Your task to perform on an android device: Set the phone to "Do not disturb". Image 0: 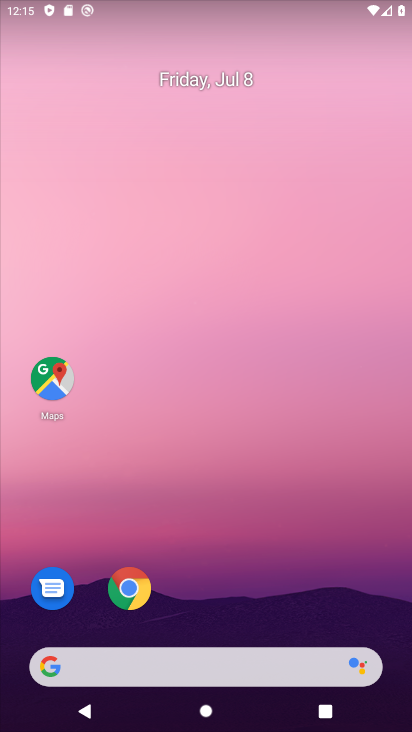
Step 0: drag from (231, 1) to (187, 712)
Your task to perform on an android device: Set the phone to "Do not disturb". Image 1: 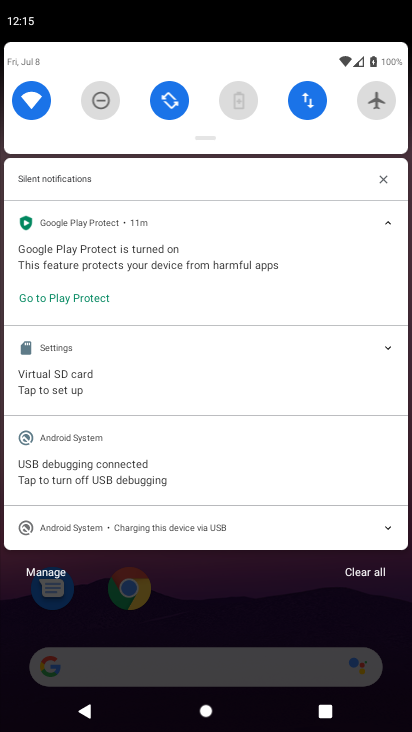
Step 1: drag from (202, 140) to (152, 719)
Your task to perform on an android device: Set the phone to "Do not disturb". Image 2: 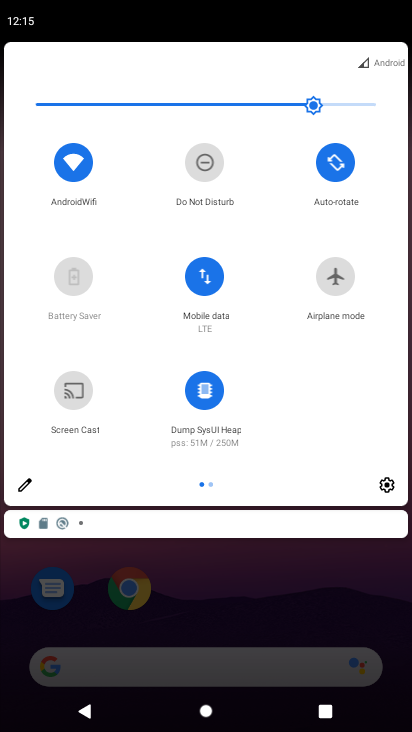
Step 2: click (198, 164)
Your task to perform on an android device: Set the phone to "Do not disturb". Image 3: 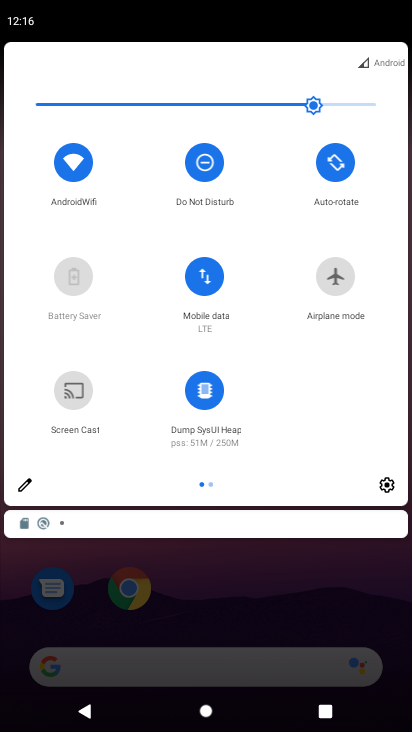
Step 3: task complete